Your task to perform on an android device: turn on sleep mode Image 0: 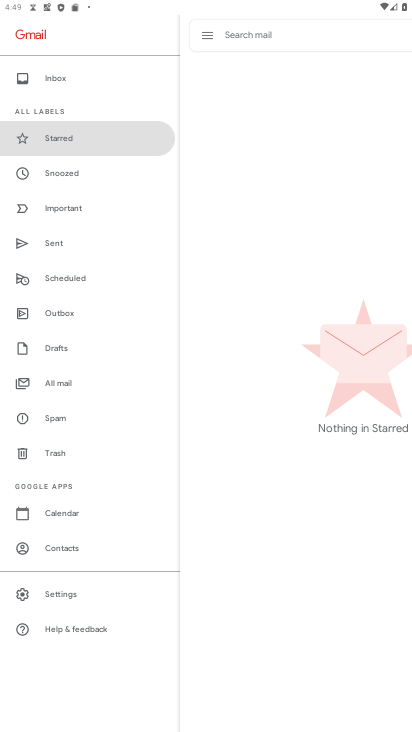
Step 0: press home button
Your task to perform on an android device: turn on sleep mode Image 1: 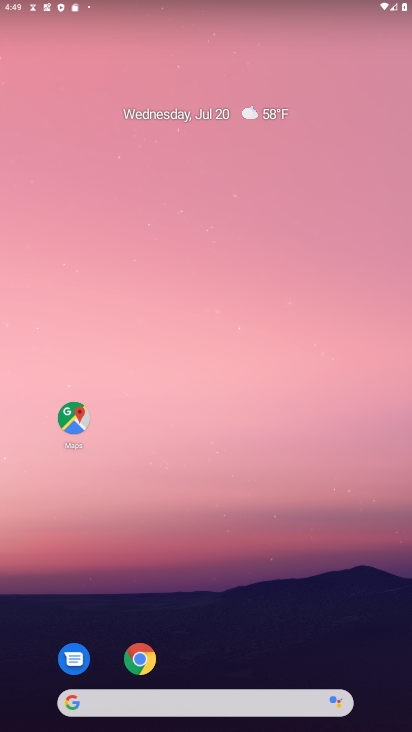
Step 1: drag from (176, 705) to (325, 11)
Your task to perform on an android device: turn on sleep mode Image 2: 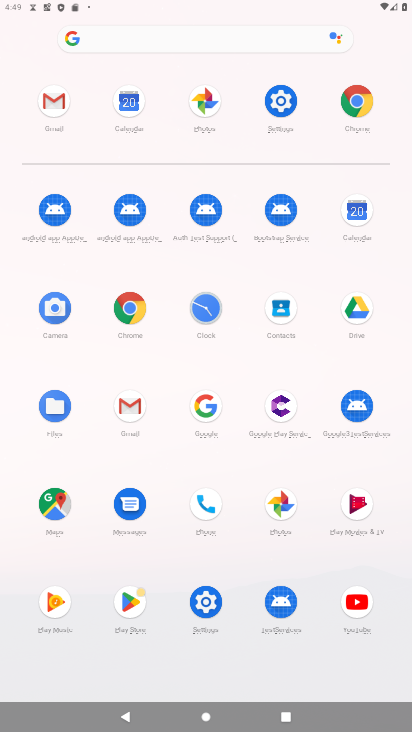
Step 2: click (280, 94)
Your task to perform on an android device: turn on sleep mode Image 3: 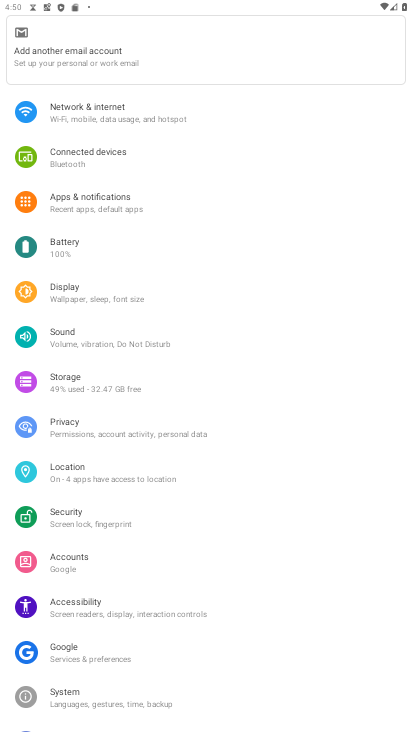
Step 3: click (89, 288)
Your task to perform on an android device: turn on sleep mode Image 4: 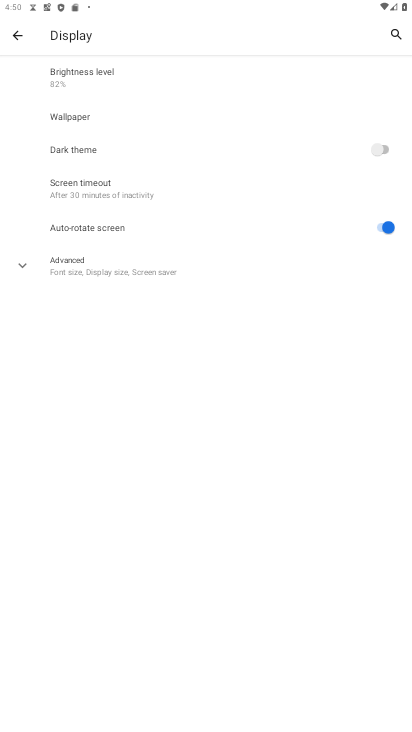
Step 4: task complete